Your task to perform on an android device: visit the assistant section in the google photos Image 0: 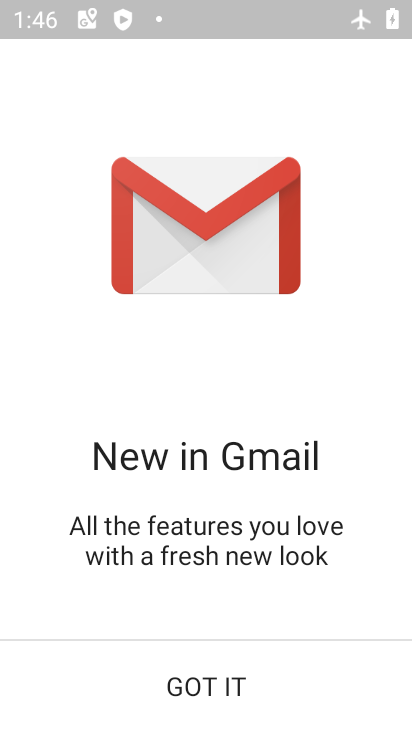
Step 0: press home button
Your task to perform on an android device: visit the assistant section in the google photos Image 1: 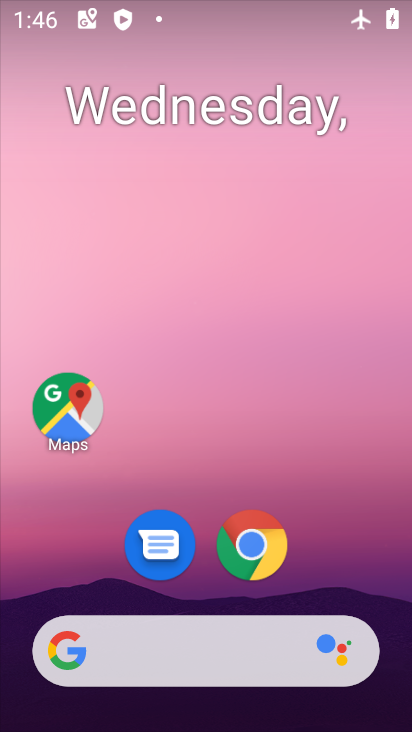
Step 1: drag from (334, 543) to (301, 70)
Your task to perform on an android device: visit the assistant section in the google photos Image 2: 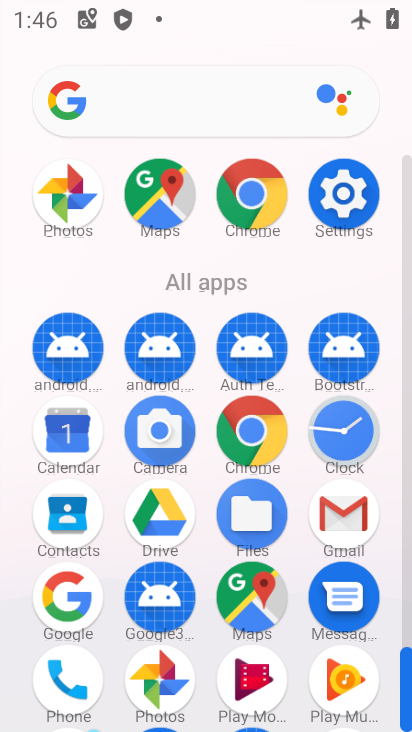
Step 2: click (159, 672)
Your task to perform on an android device: visit the assistant section in the google photos Image 3: 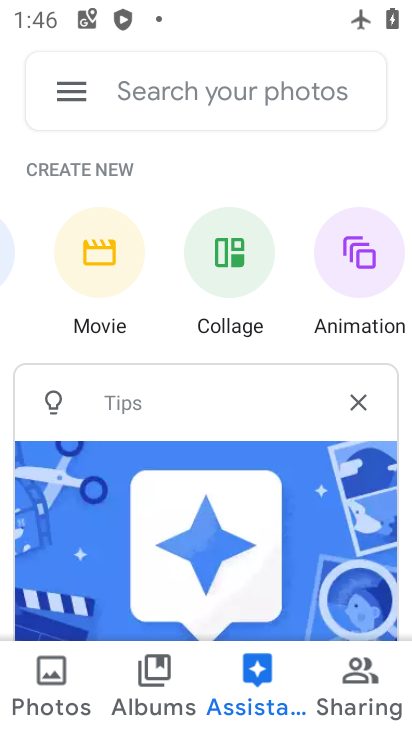
Step 3: task complete